Your task to perform on an android device: toggle pop-ups in chrome Image 0: 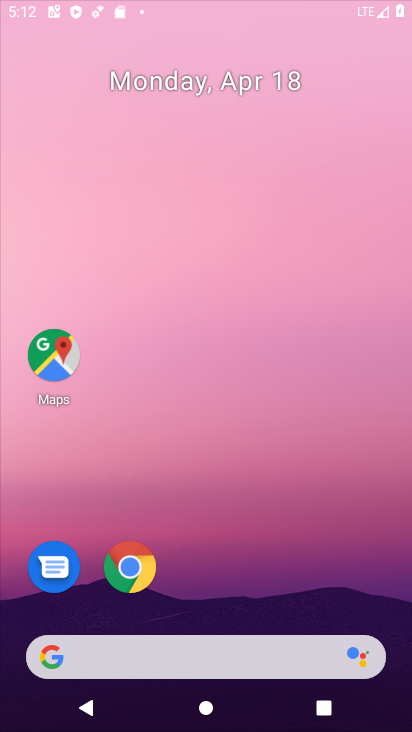
Step 0: click (260, 5)
Your task to perform on an android device: toggle pop-ups in chrome Image 1: 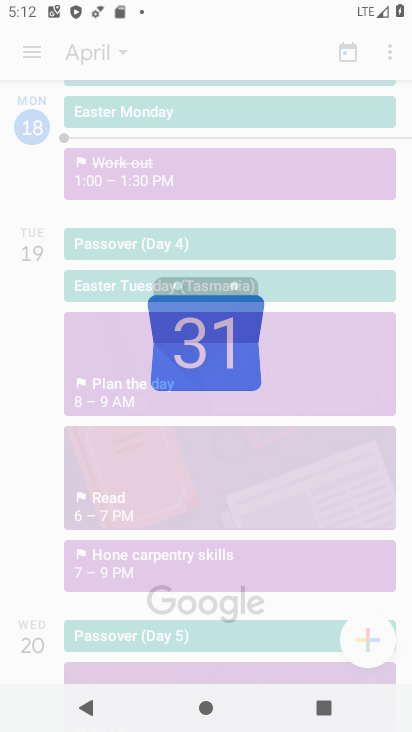
Step 1: drag from (384, 627) to (294, 42)
Your task to perform on an android device: toggle pop-ups in chrome Image 2: 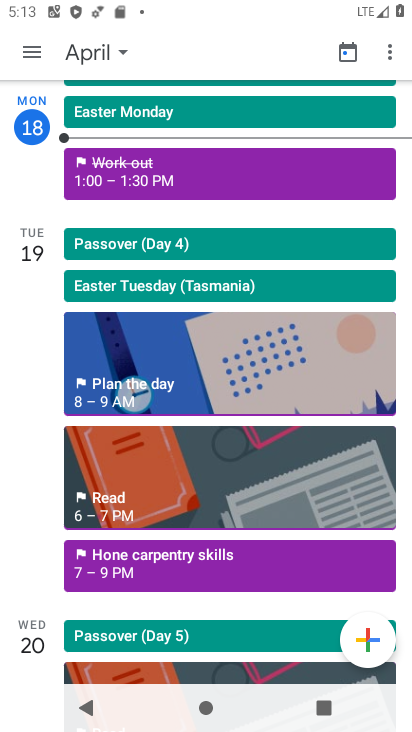
Step 2: press back button
Your task to perform on an android device: toggle pop-ups in chrome Image 3: 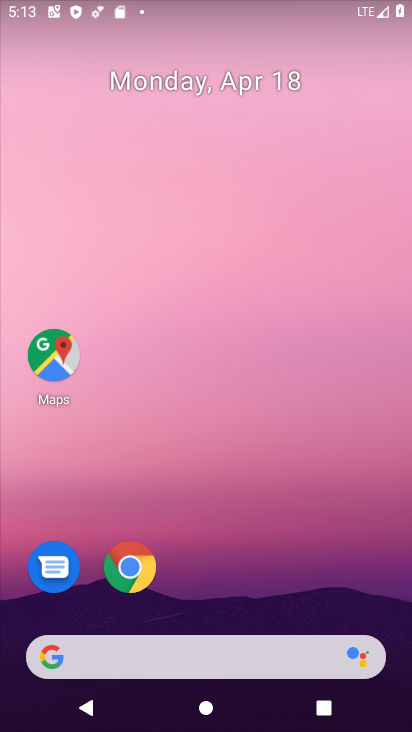
Step 3: drag from (389, 602) to (259, 37)
Your task to perform on an android device: toggle pop-ups in chrome Image 4: 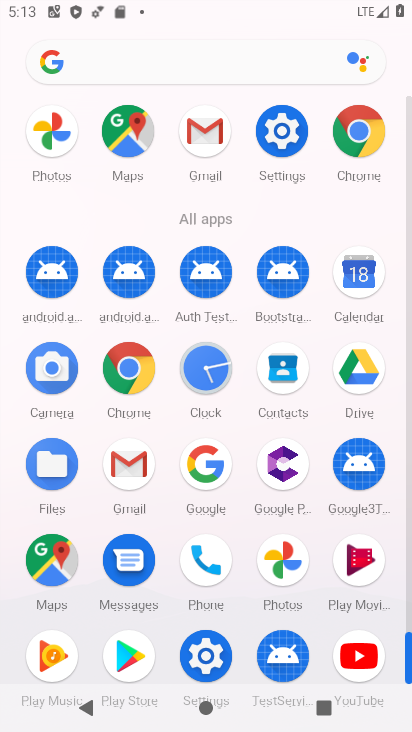
Step 4: drag from (6, 457) to (9, 166)
Your task to perform on an android device: toggle pop-ups in chrome Image 5: 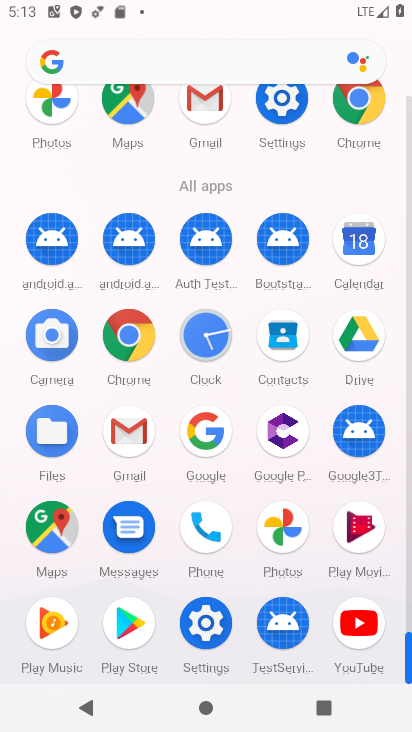
Step 5: click (125, 333)
Your task to perform on an android device: toggle pop-ups in chrome Image 6: 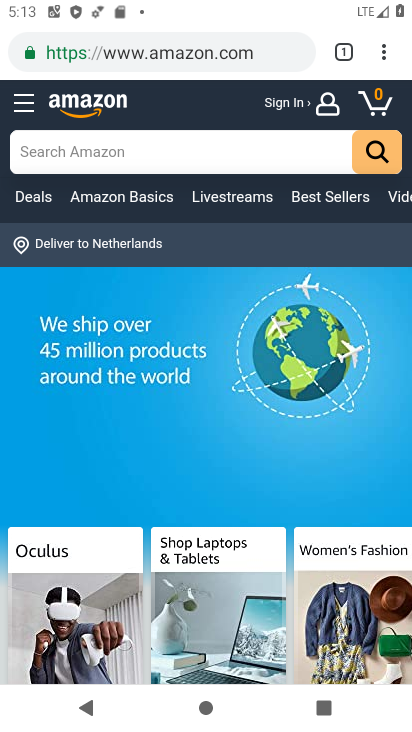
Step 6: click (373, 48)
Your task to perform on an android device: toggle pop-ups in chrome Image 7: 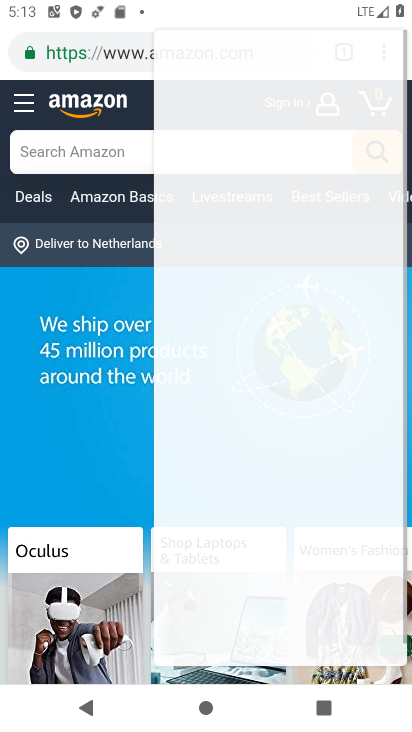
Step 7: click (384, 49)
Your task to perform on an android device: toggle pop-ups in chrome Image 8: 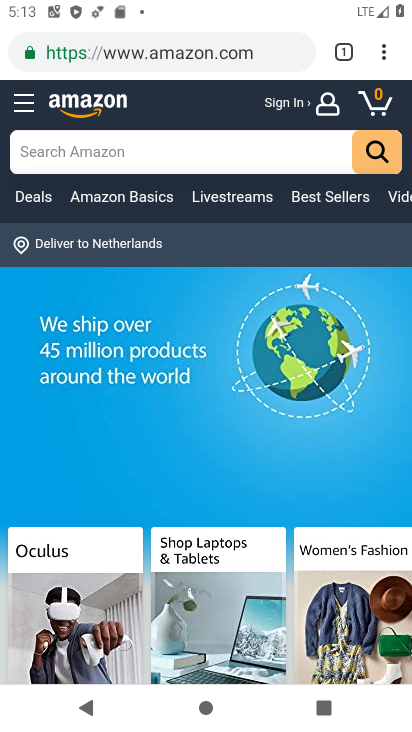
Step 8: drag from (384, 49) to (228, 608)
Your task to perform on an android device: toggle pop-ups in chrome Image 9: 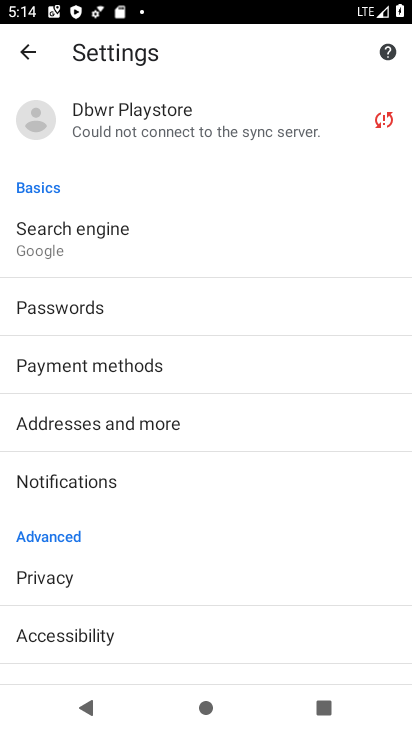
Step 9: drag from (223, 595) to (233, 183)
Your task to perform on an android device: toggle pop-ups in chrome Image 10: 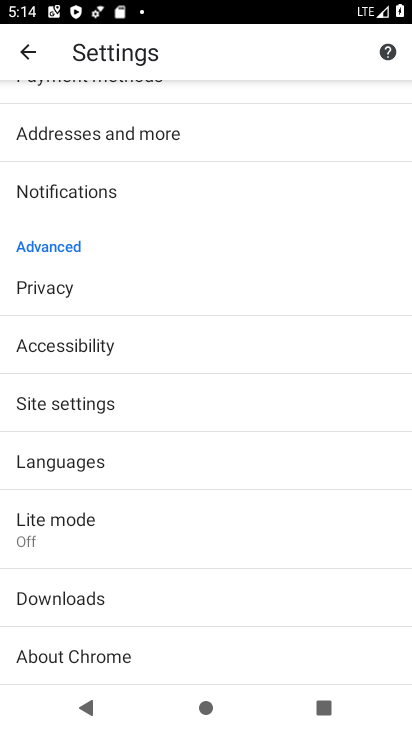
Step 10: click (129, 396)
Your task to perform on an android device: toggle pop-ups in chrome Image 11: 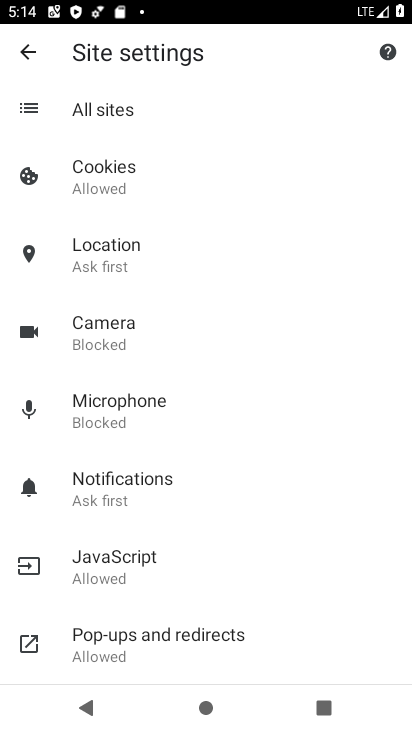
Step 11: drag from (195, 549) to (215, 158)
Your task to perform on an android device: toggle pop-ups in chrome Image 12: 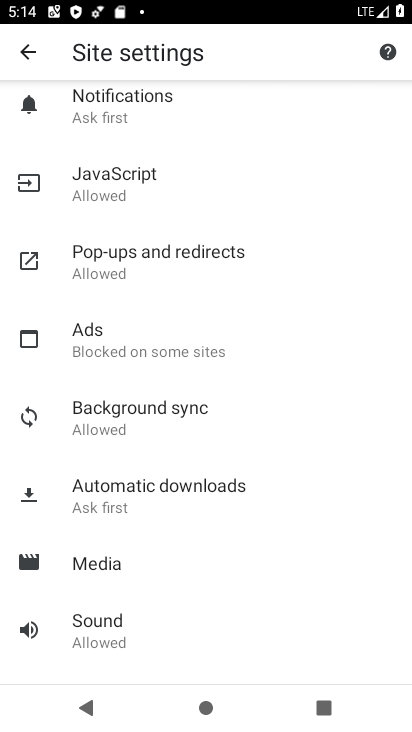
Step 12: click (143, 259)
Your task to perform on an android device: toggle pop-ups in chrome Image 13: 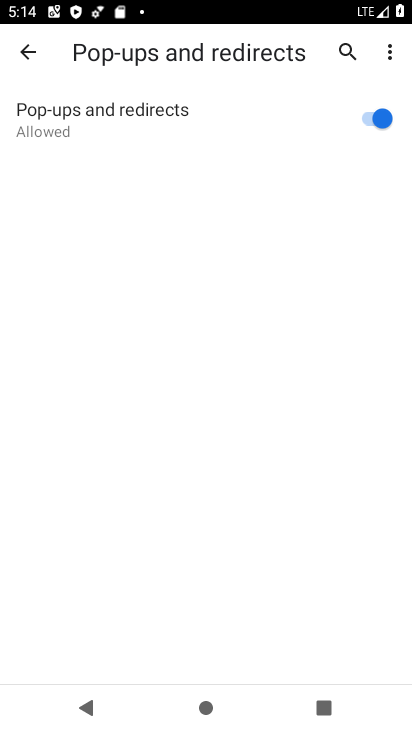
Step 13: click (367, 114)
Your task to perform on an android device: toggle pop-ups in chrome Image 14: 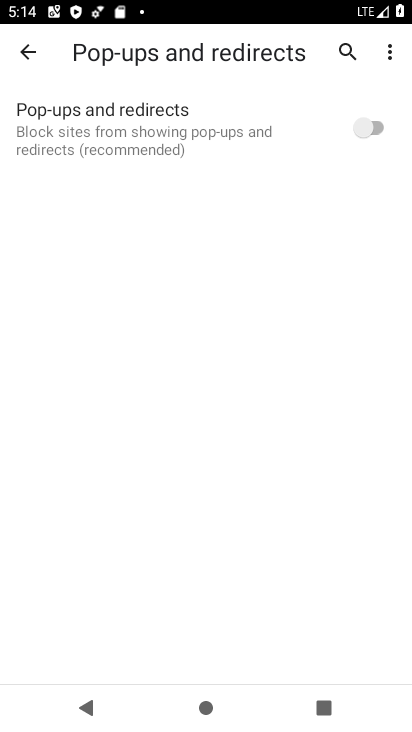
Step 14: task complete